Your task to perform on an android device: Open the Play Movies app and select the watchlist tab. Image 0: 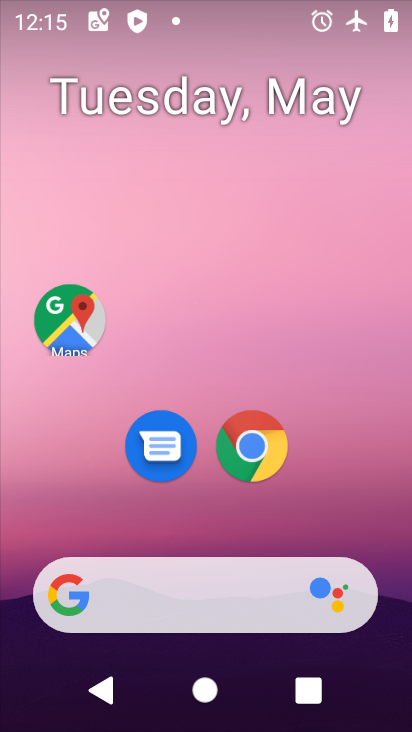
Step 0: drag from (350, 414) to (322, 244)
Your task to perform on an android device: Open the Play Movies app and select the watchlist tab. Image 1: 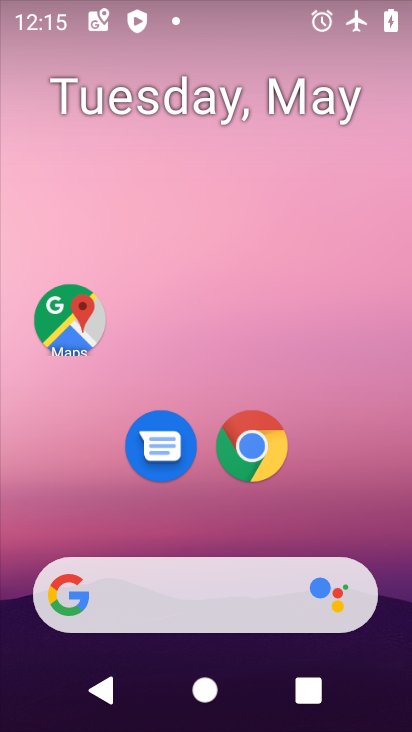
Step 1: drag from (308, 468) to (304, 43)
Your task to perform on an android device: Open the Play Movies app and select the watchlist tab. Image 2: 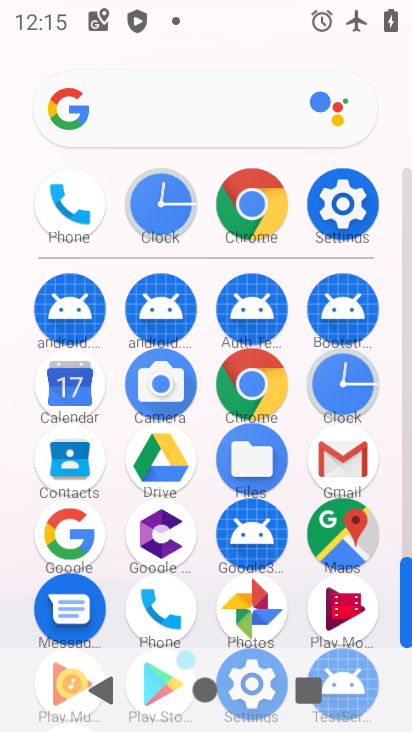
Step 2: drag from (269, 604) to (328, 285)
Your task to perform on an android device: Open the Play Movies app and select the watchlist tab. Image 3: 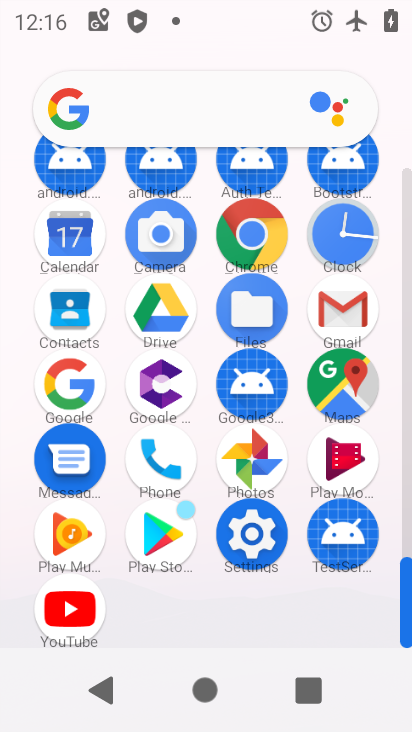
Step 3: click (325, 450)
Your task to perform on an android device: Open the Play Movies app and select the watchlist tab. Image 4: 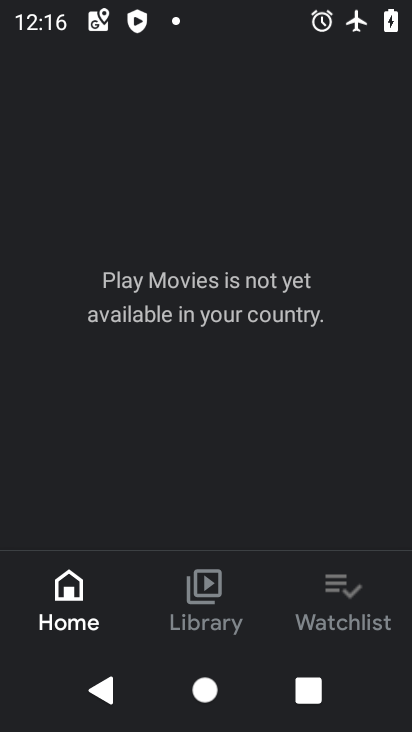
Step 4: click (329, 595)
Your task to perform on an android device: Open the Play Movies app and select the watchlist tab. Image 5: 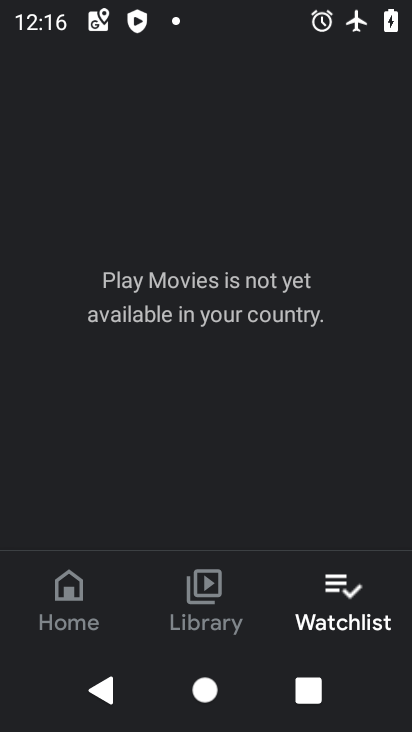
Step 5: task complete